Your task to perform on an android device: Show the shopping cart on target. Search for logitech g502 on target, select the first entry, and add it to the cart. Image 0: 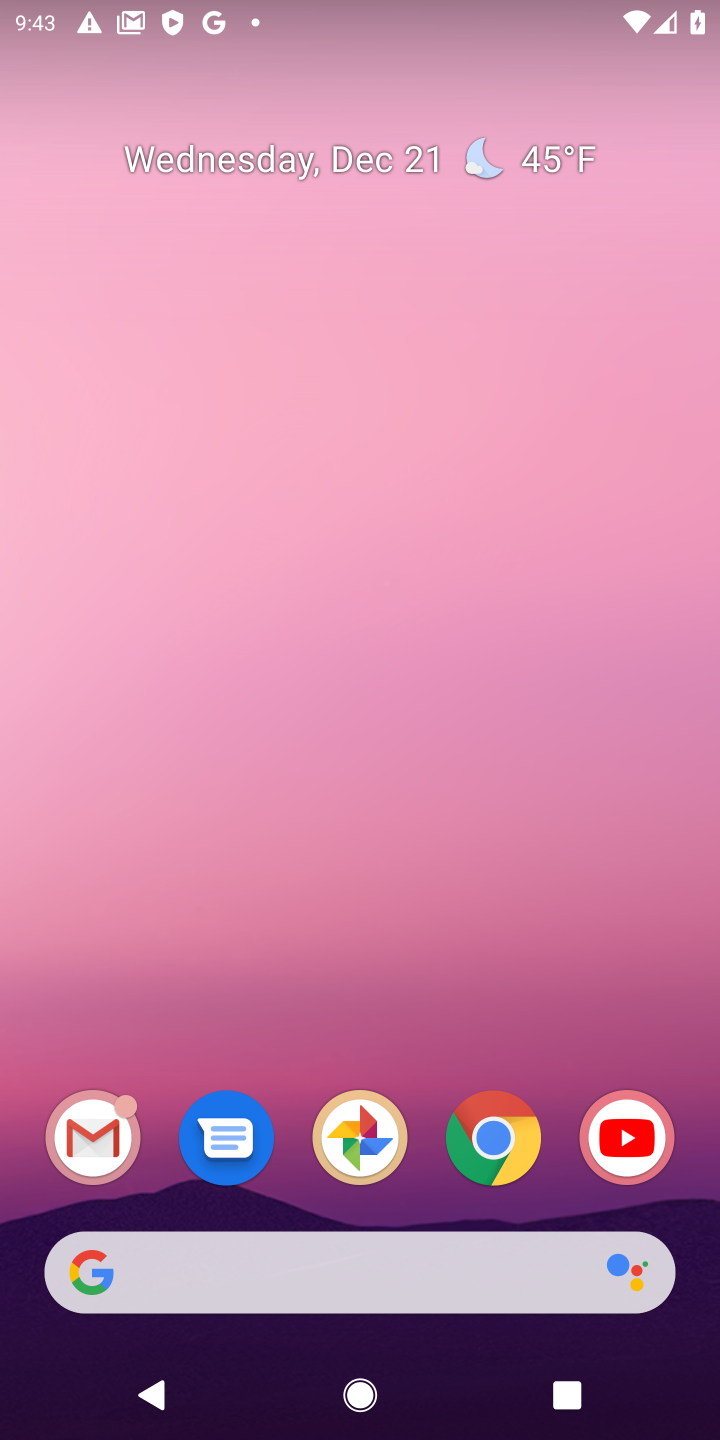
Step 0: click (484, 1144)
Your task to perform on an android device: Show the shopping cart on target. Search for logitech g502 on target, select the first entry, and add it to the cart. Image 1: 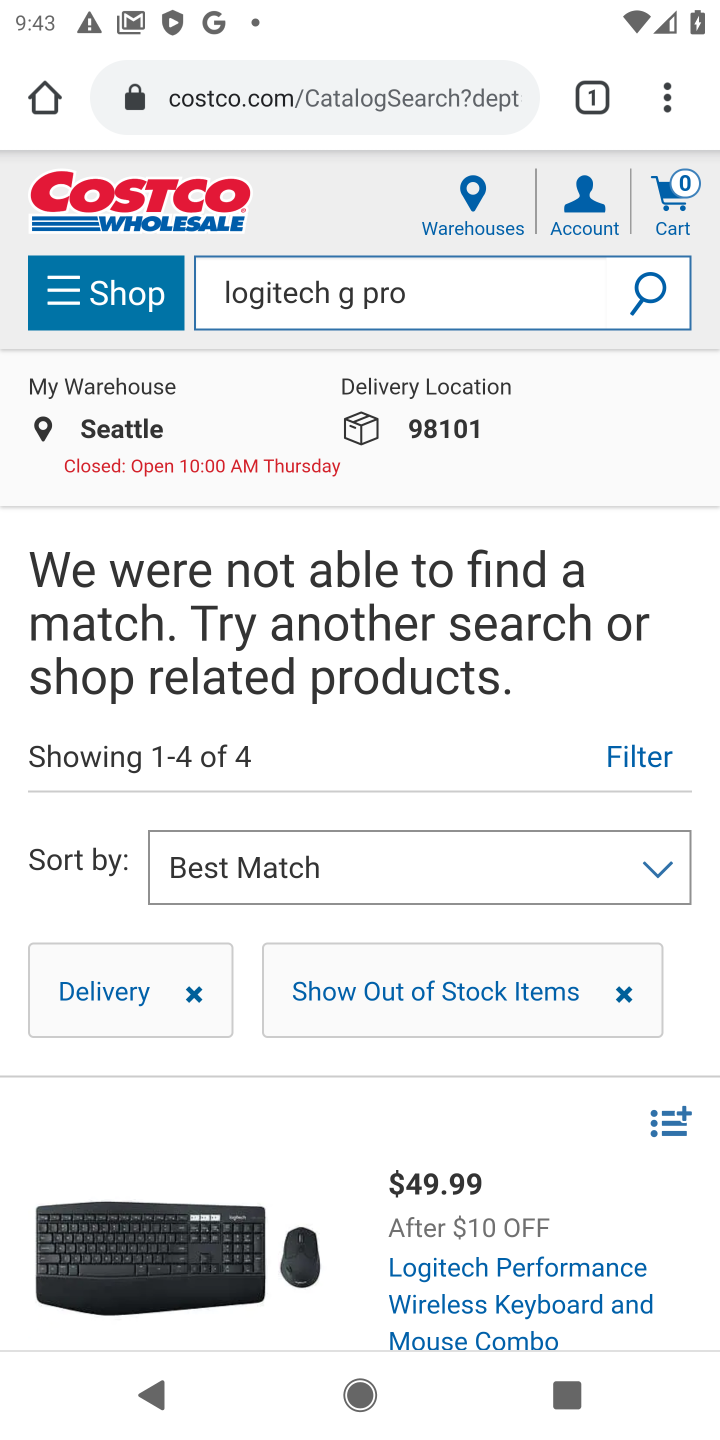
Step 1: click (253, 99)
Your task to perform on an android device: Show the shopping cart on target. Search for logitech g502 on target, select the first entry, and add it to the cart. Image 2: 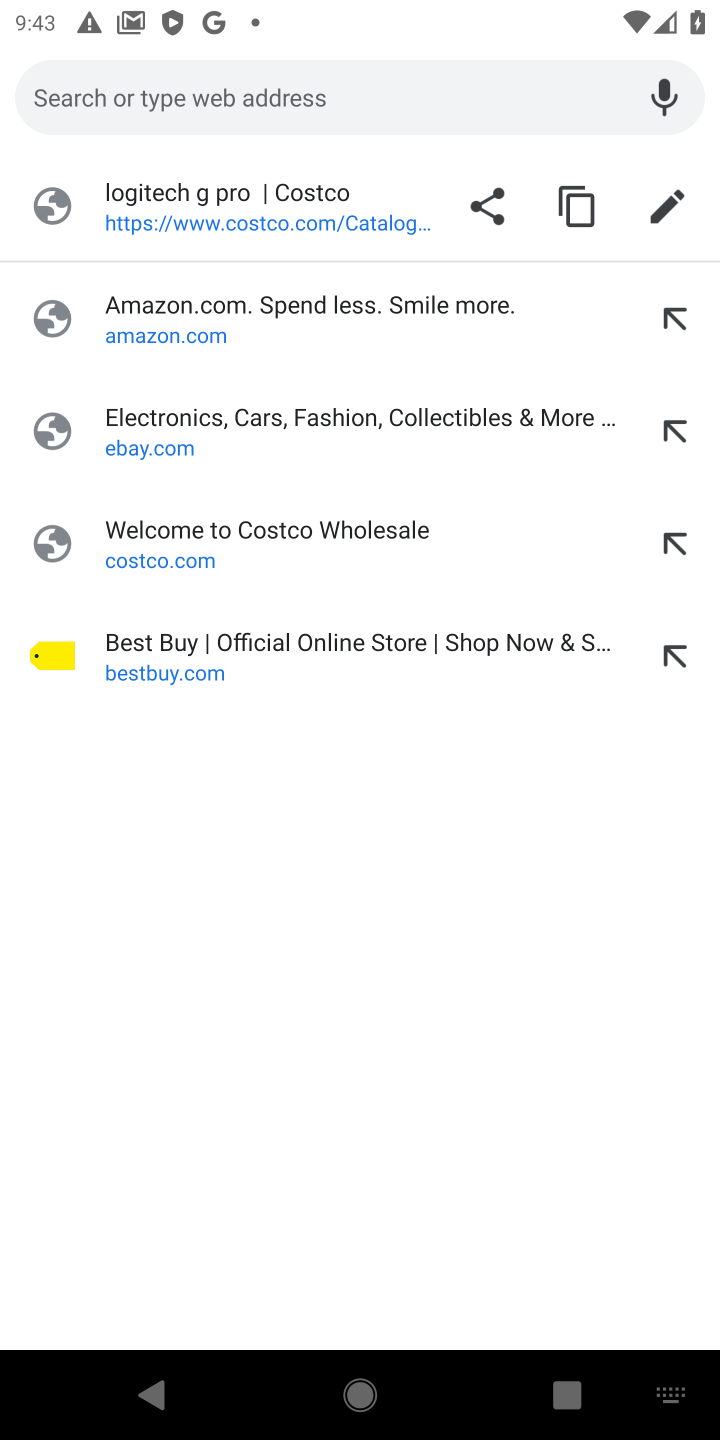
Step 2: type "target.com"
Your task to perform on an android device: Show the shopping cart on target. Search for logitech g502 on target, select the first entry, and add it to the cart. Image 3: 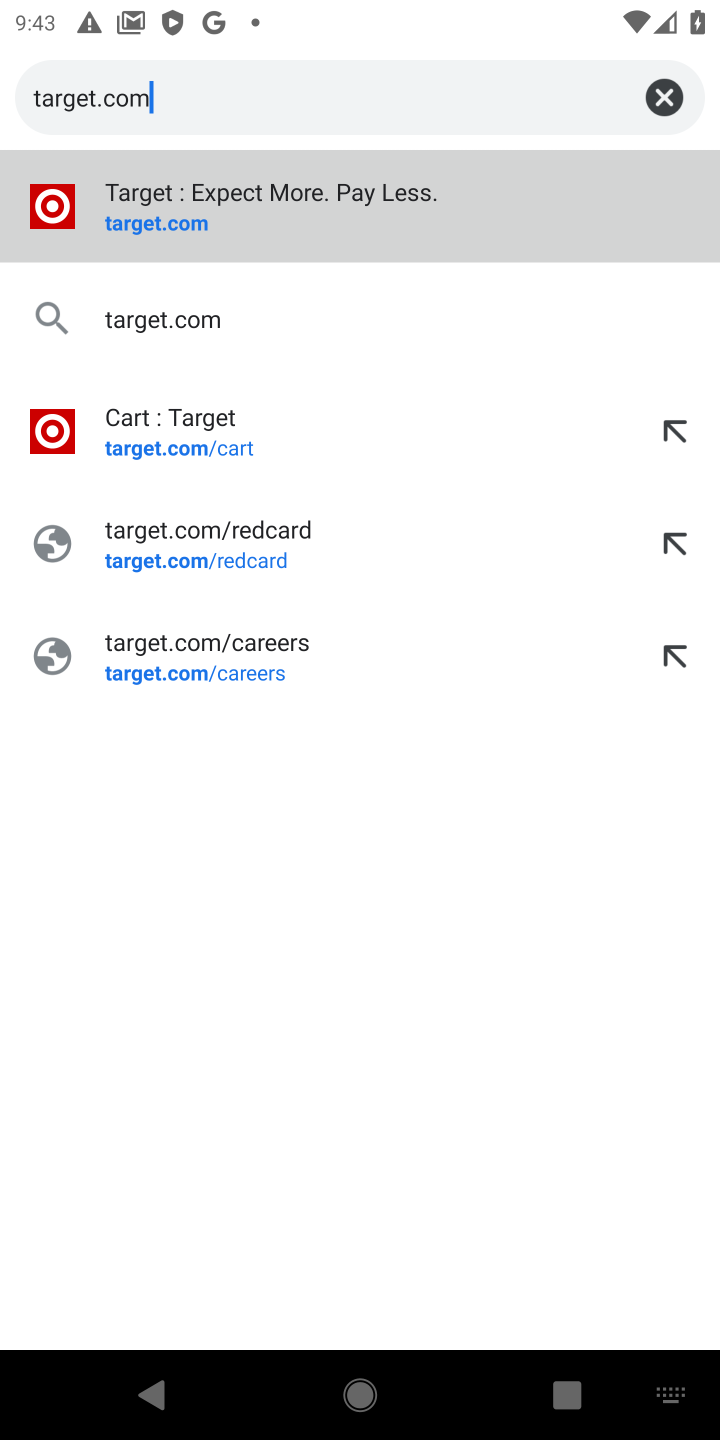
Step 3: click (144, 227)
Your task to perform on an android device: Show the shopping cart on target. Search for logitech g502 on target, select the first entry, and add it to the cart. Image 4: 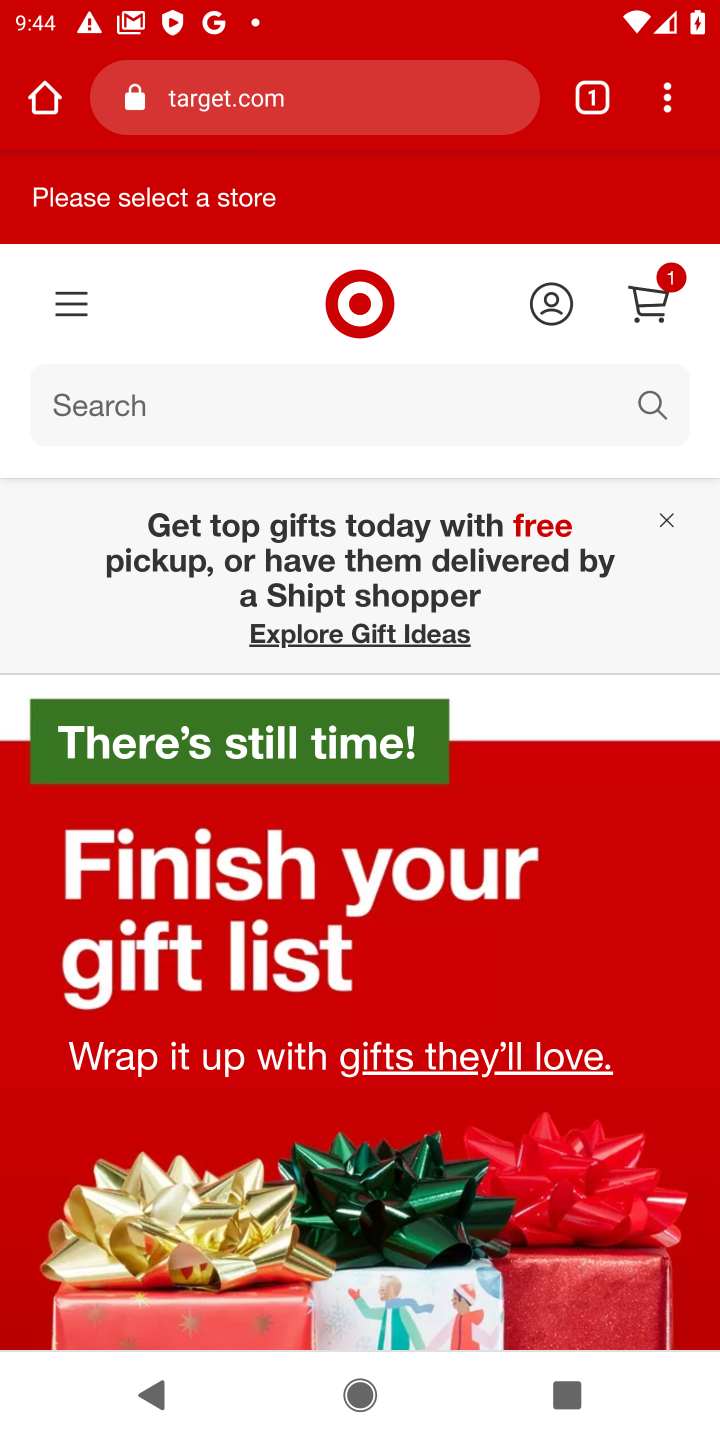
Step 4: click (655, 307)
Your task to perform on an android device: Show the shopping cart on target. Search for logitech g502 on target, select the first entry, and add it to the cart. Image 5: 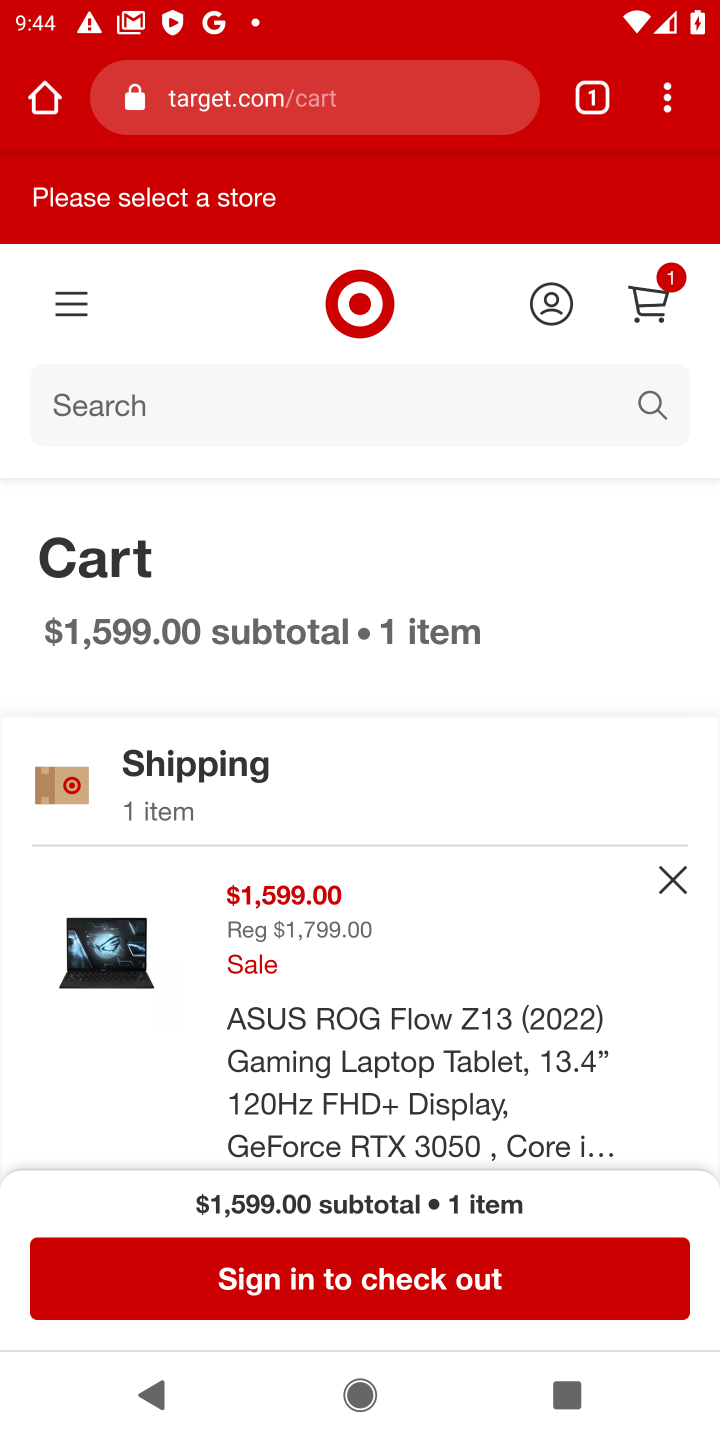
Step 5: drag from (295, 1054) to (385, 732)
Your task to perform on an android device: Show the shopping cart on target. Search for logitech g502 on target, select the first entry, and add it to the cart. Image 6: 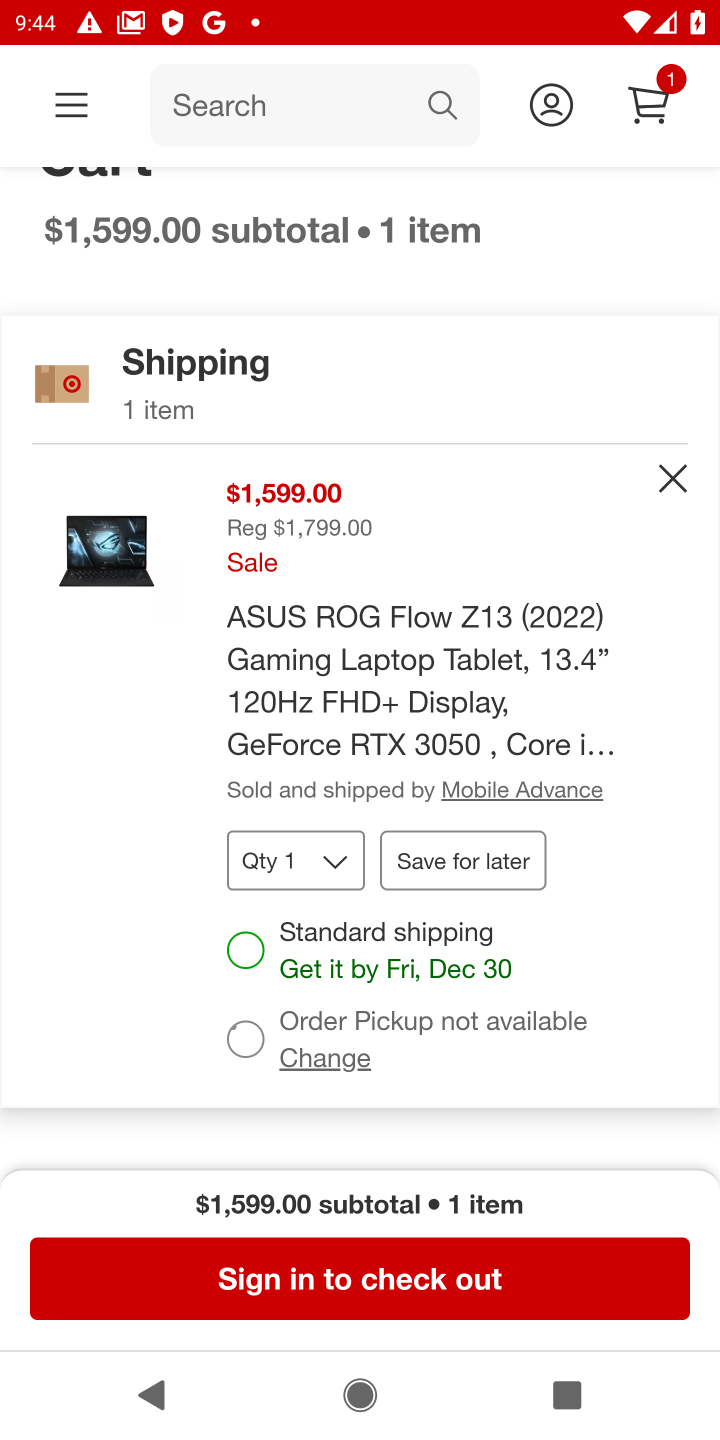
Step 6: click (432, 107)
Your task to perform on an android device: Show the shopping cart on target. Search for logitech g502 on target, select the first entry, and add it to the cart. Image 7: 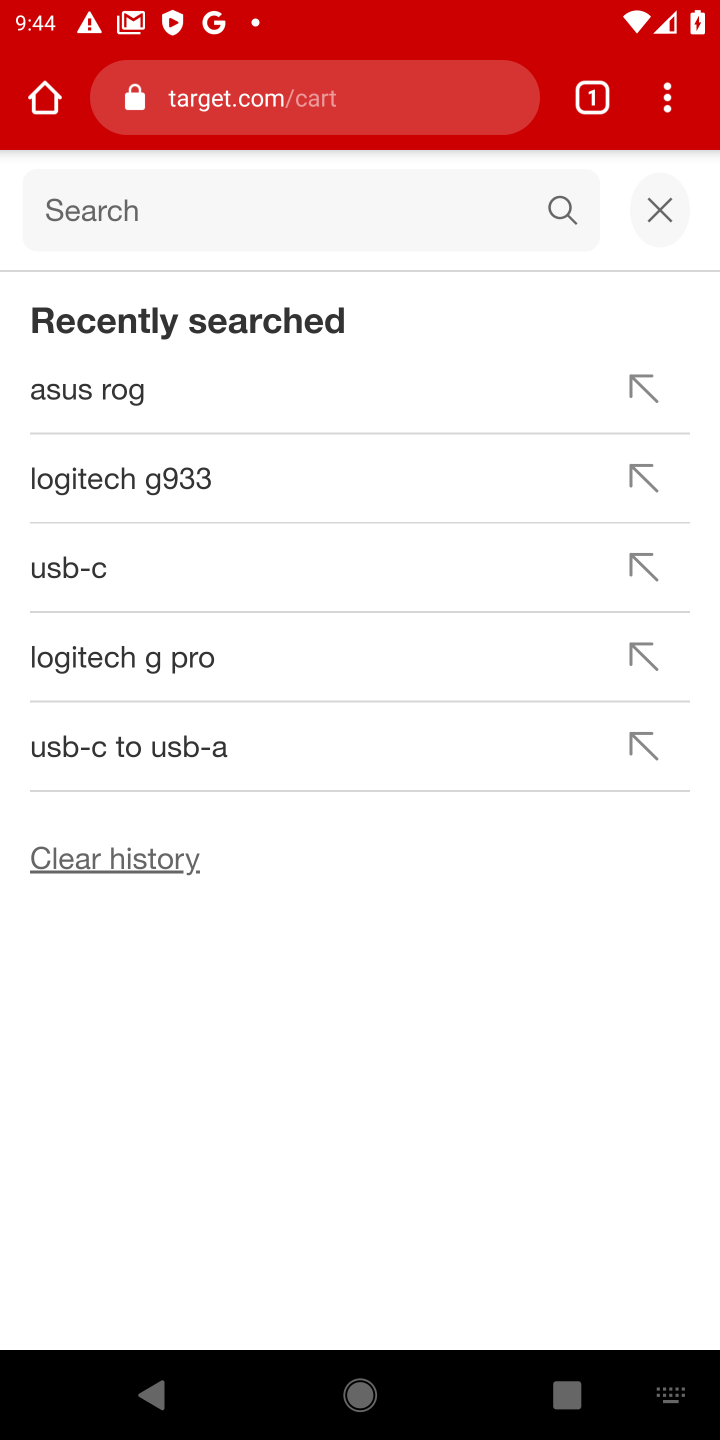
Step 7: type "logitech g502"
Your task to perform on an android device: Show the shopping cart on target. Search for logitech g502 on target, select the first entry, and add it to the cart. Image 8: 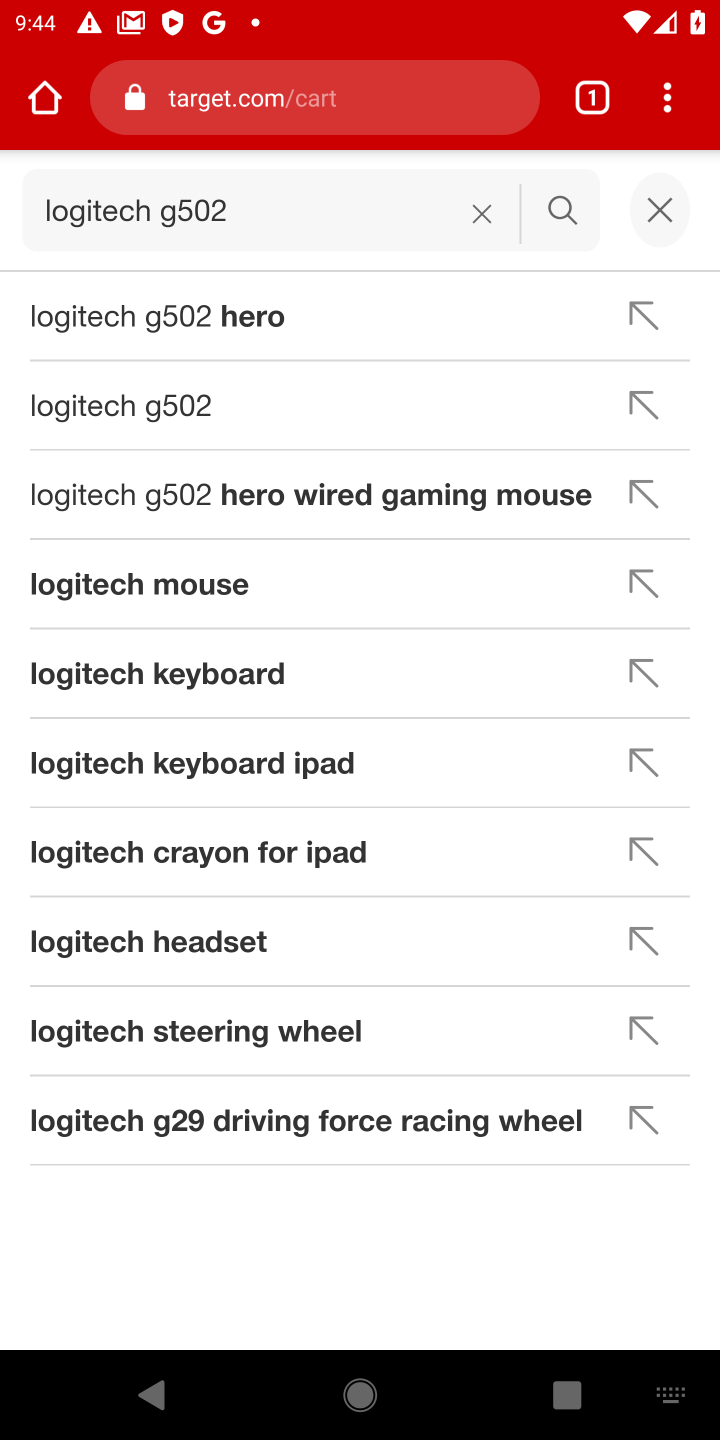
Step 8: click (137, 407)
Your task to perform on an android device: Show the shopping cart on target. Search for logitech g502 on target, select the first entry, and add it to the cart. Image 9: 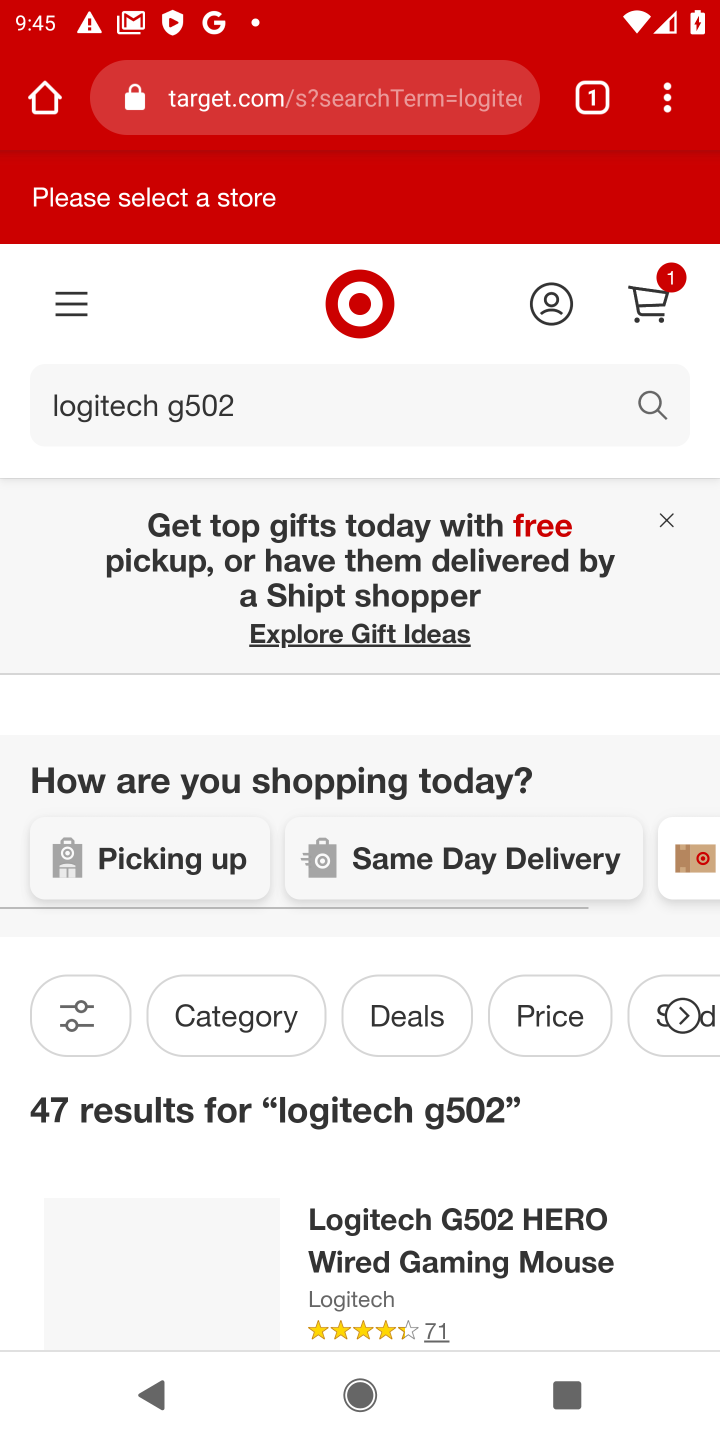
Step 9: drag from (259, 1111) to (304, 473)
Your task to perform on an android device: Show the shopping cart on target. Search for logitech g502 on target, select the first entry, and add it to the cart. Image 10: 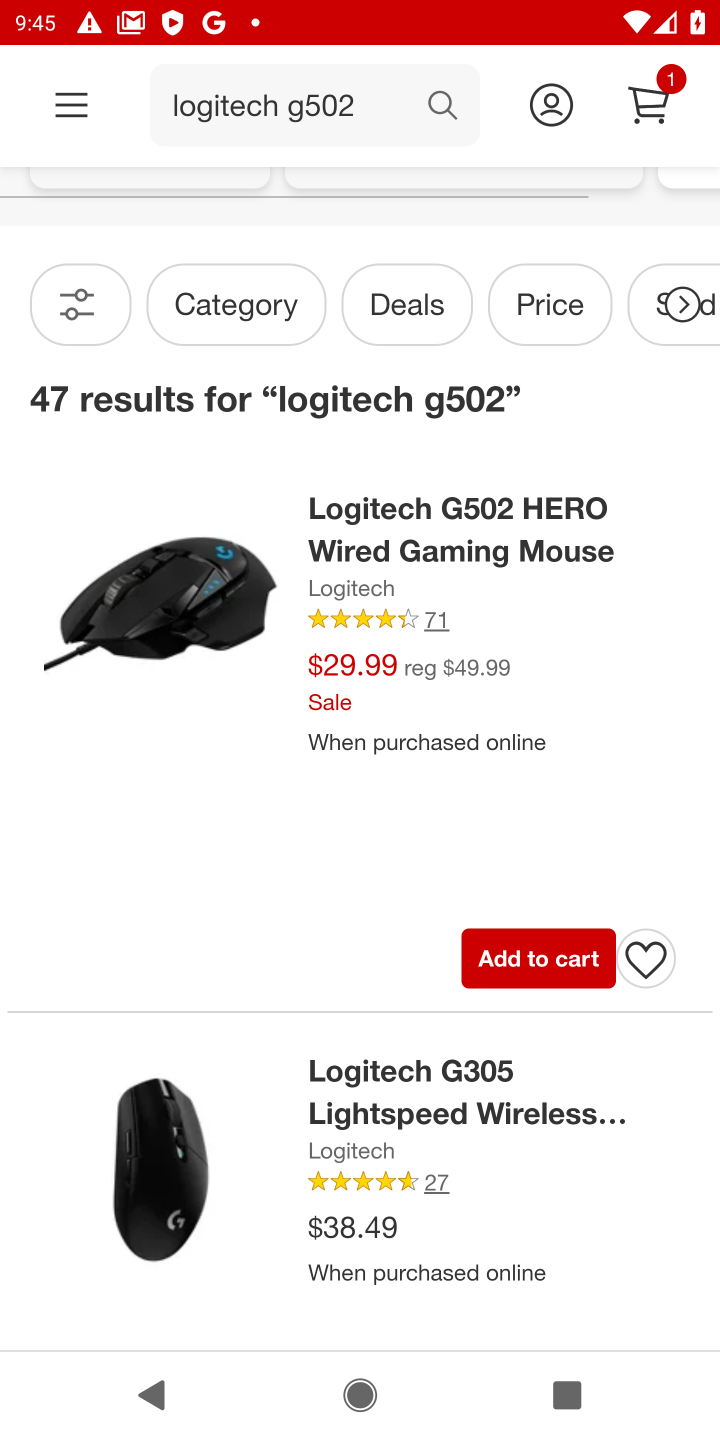
Step 10: click (527, 965)
Your task to perform on an android device: Show the shopping cart on target. Search for logitech g502 on target, select the first entry, and add it to the cart. Image 11: 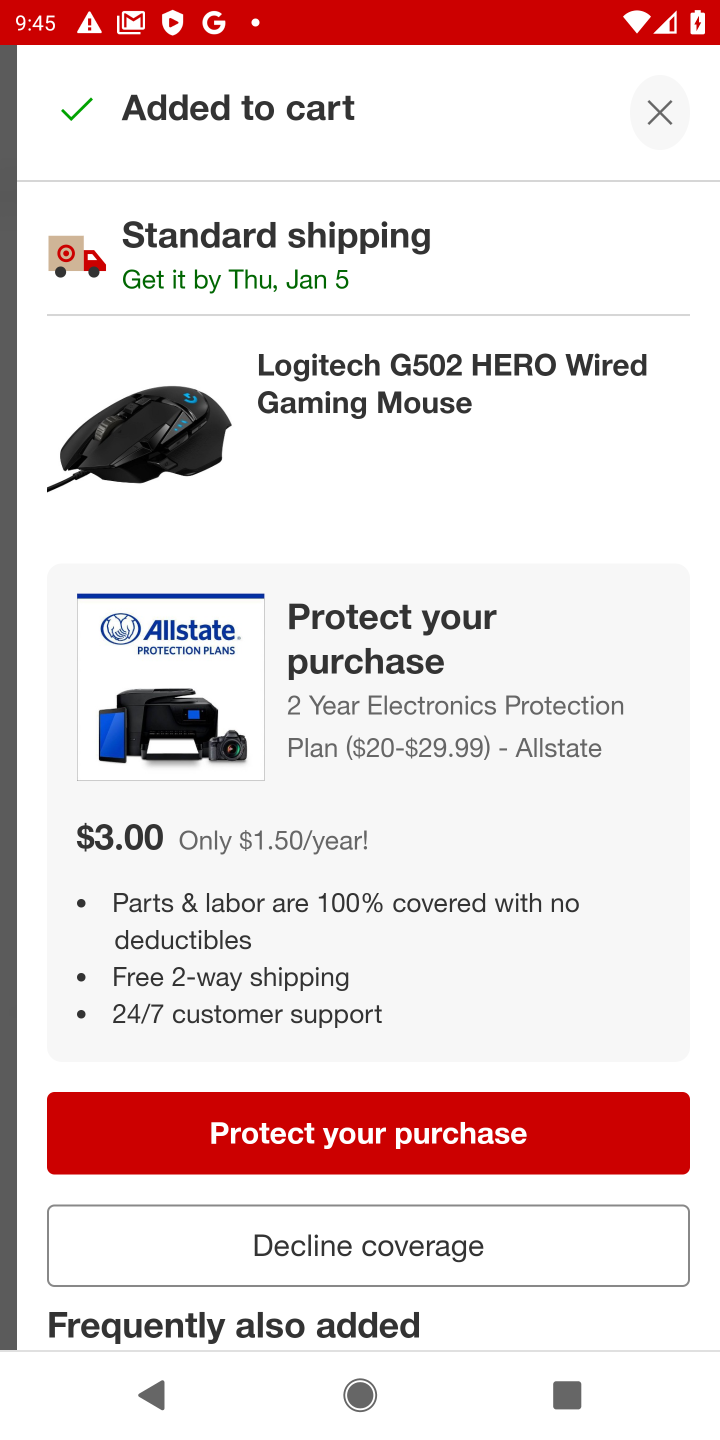
Step 11: task complete